Your task to perform on an android device: Play the last video I watched on Youtube Image 0: 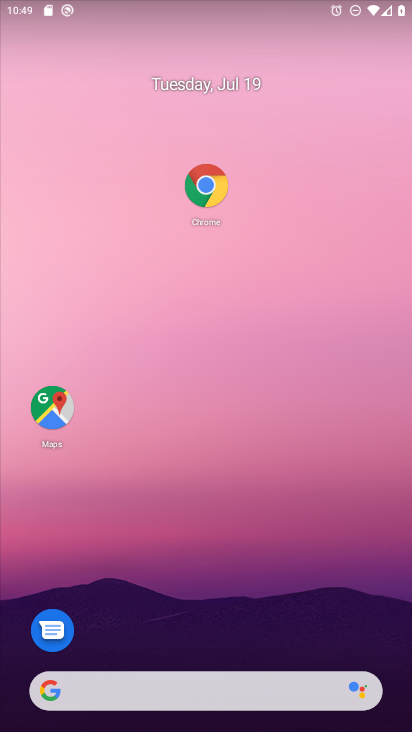
Step 0: drag from (177, 625) to (172, 103)
Your task to perform on an android device: Play the last video I watched on Youtube Image 1: 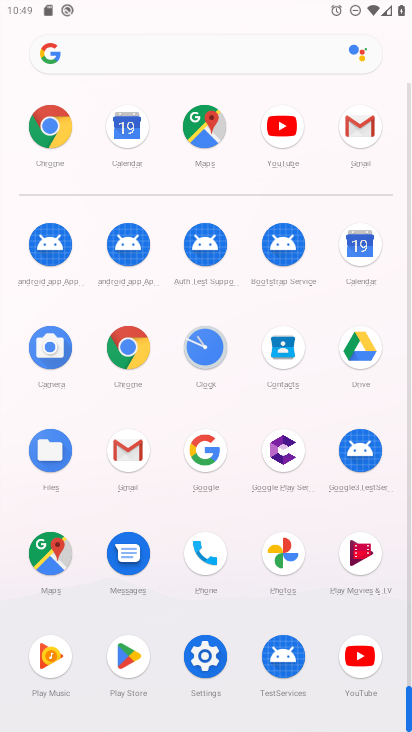
Step 1: click (355, 664)
Your task to perform on an android device: Play the last video I watched on Youtube Image 2: 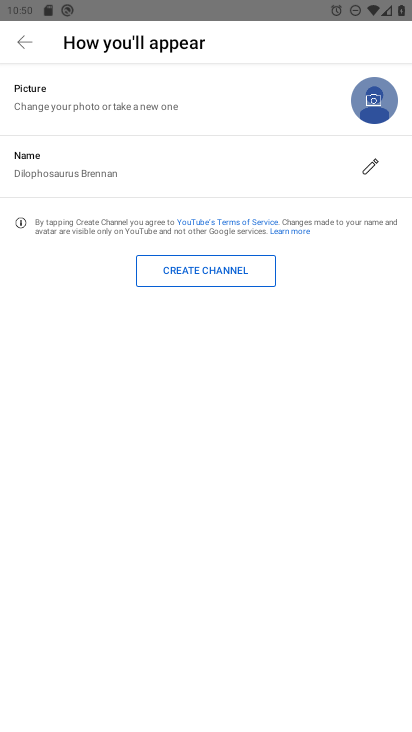
Step 2: press back button
Your task to perform on an android device: Play the last video I watched on Youtube Image 3: 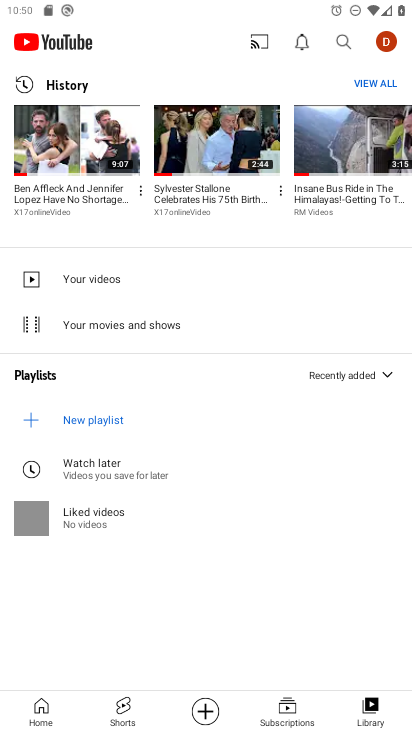
Step 3: click (74, 136)
Your task to perform on an android device: Play the last video I watched on Youtube Image 4: 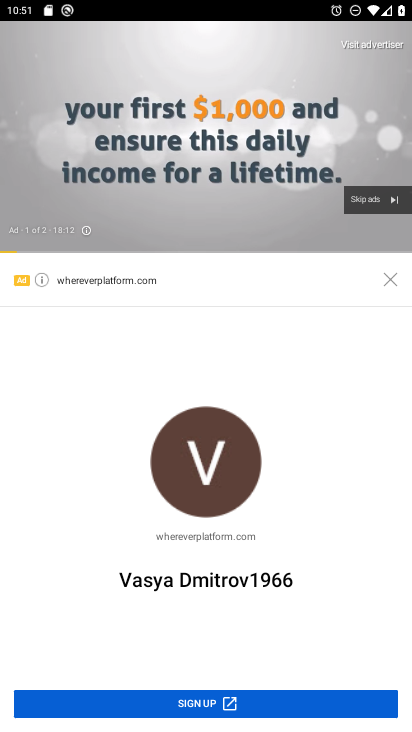
Step 4: task complete